Your task to perform on an android device: Open calendar and show me the first week of next month Image 0: 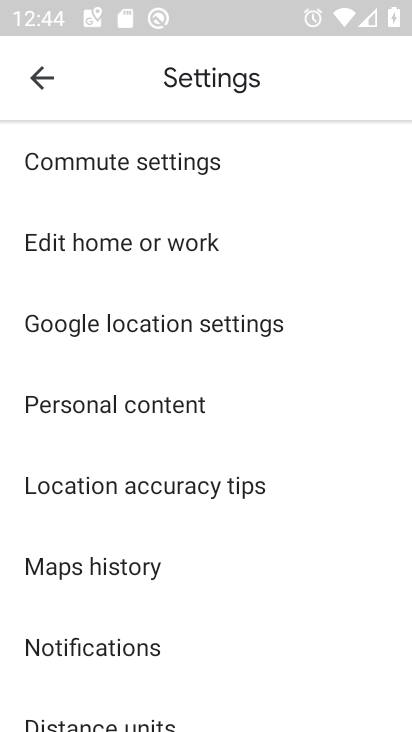
Step 0: press home button
Your task to perform on an android device: Open calendar and show me the first week of next month Image 1: 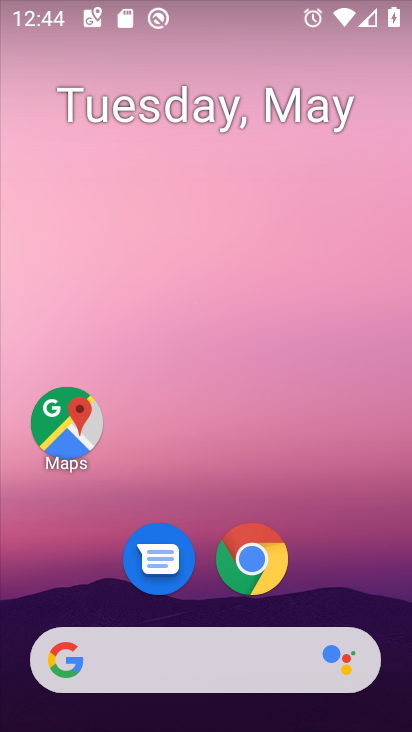
Step 1: drag from (352, 602) to (267, 44)
Your task to perform on an android device: Open calendar and show me the first week of next month Image 2: 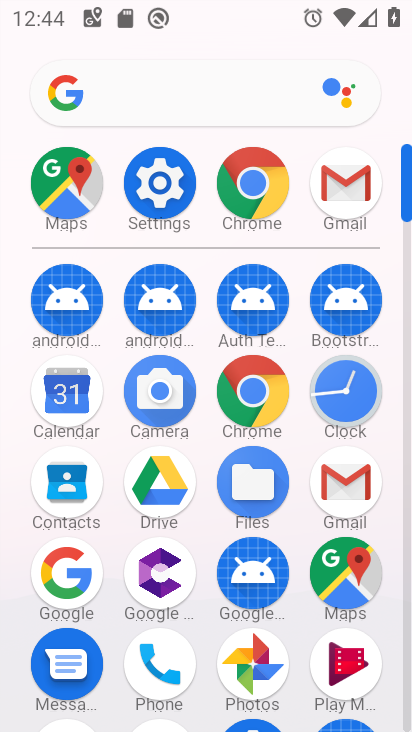
Step 2: click (68, 400)
Your task to perform on an android device: Open calendar and show me the first week of next month Image 3: 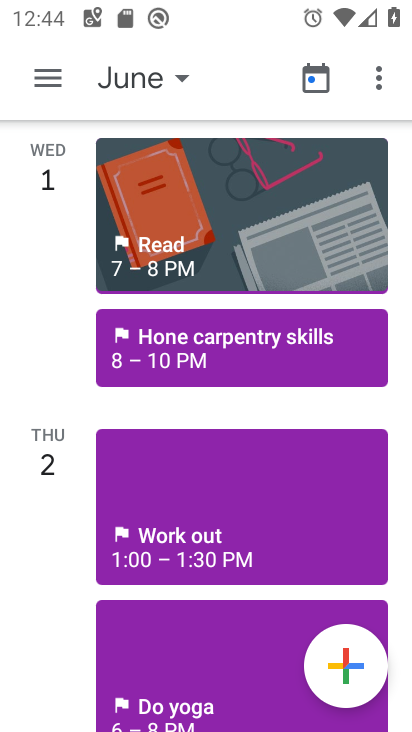
Step 3: click (44, 83)
Your task to perform on an android device: Open calendar and show me the first week of next month Image 4: 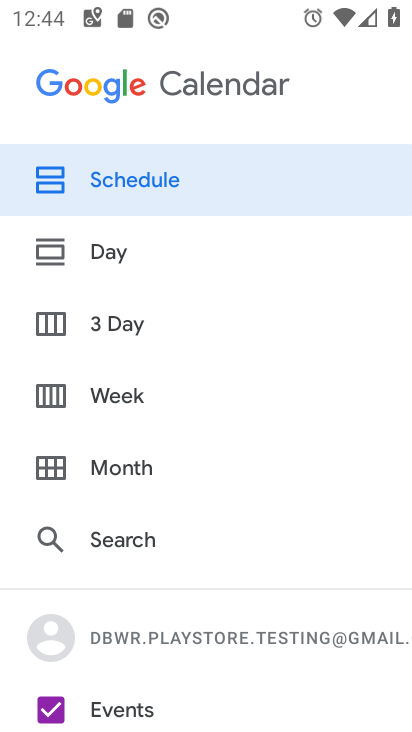
Step 4: click (129, 397)
Your task to perform on an android device: Open calendar and show me the first week of next month Image 5: 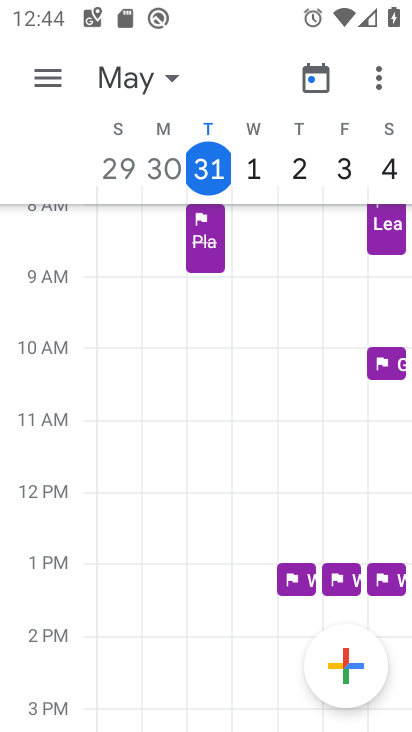
Step 5: click (150, 82)
Your task to perform on an android device: Open calendar and show me the first week of next month Image 6: 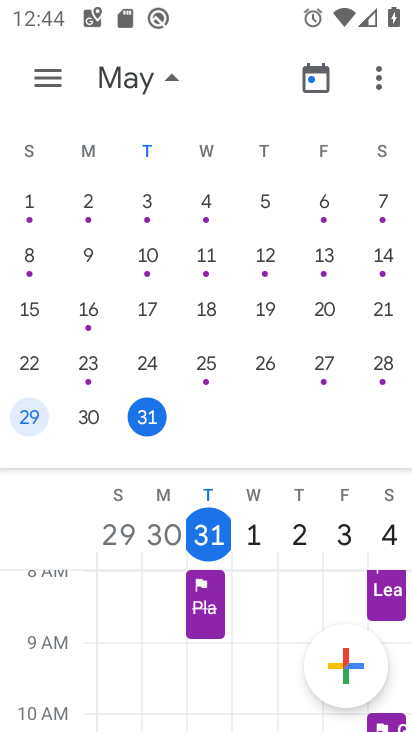
Step 6: drag from (380, 273) to (35, 272)
Your task to perform on an android device: Open calendar and show me the first week of next month Image 7: 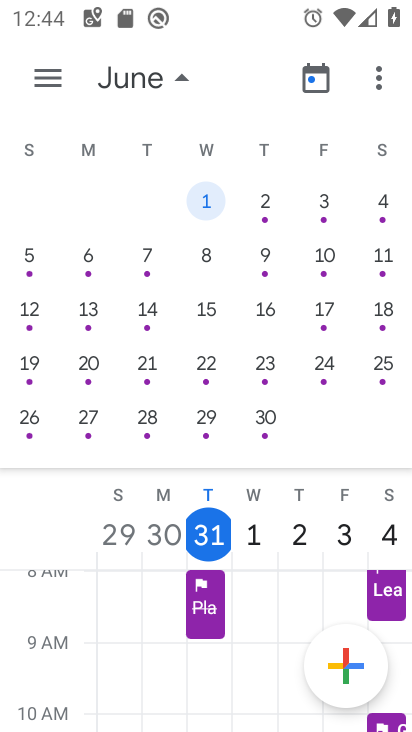
Step 7: click (217, 198)
Your task to perform on an android device: Open calendar and show me the first week of next month Image 8: 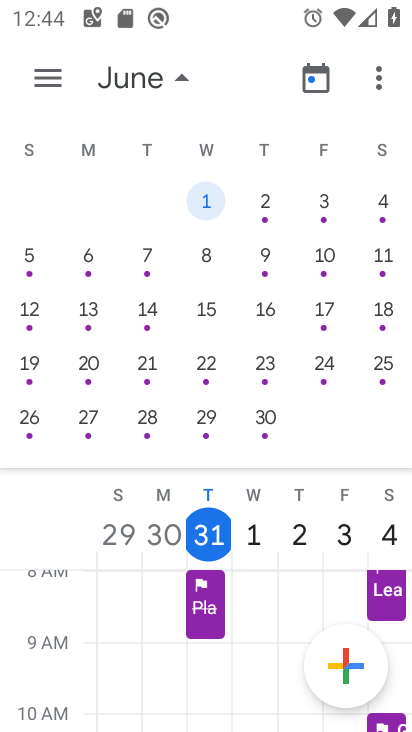
Step 8: click (172, 79)
Your task to perform on an android device: Open calendar and show me the first week of next month Image 9: 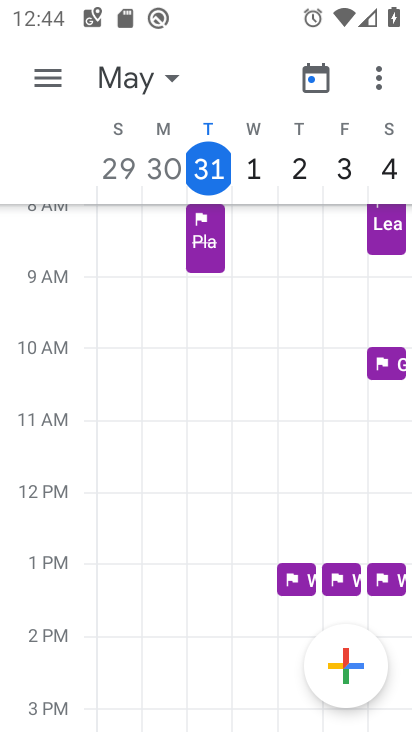
Step 9: task complete